Your task to perform on an android device: Go to accessibility settings Image 0: 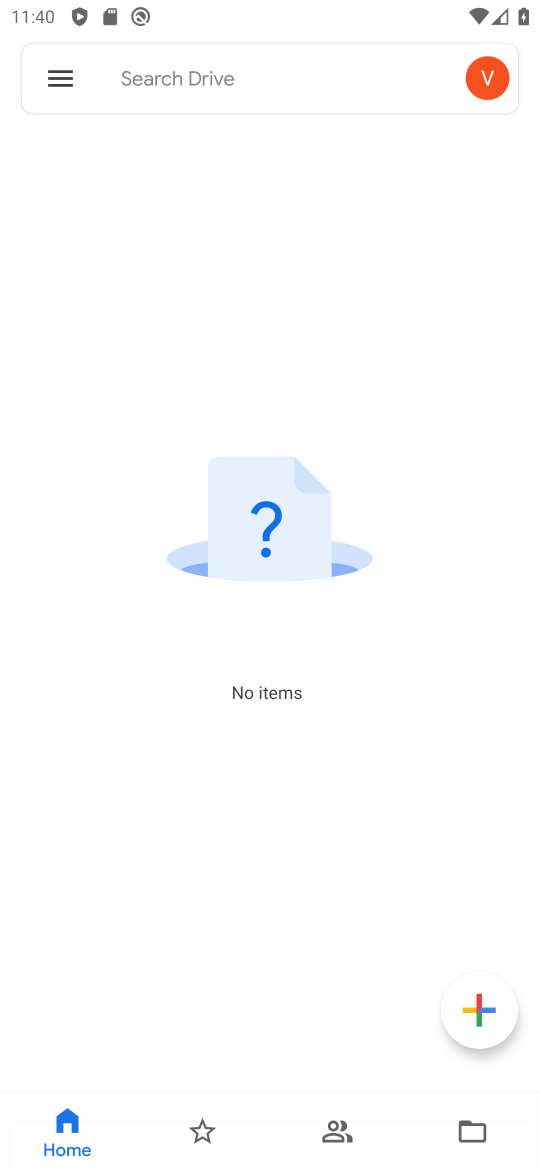
Step 0: press back button
Your task to perform on an android device: Go to accessibility settings Image 1: 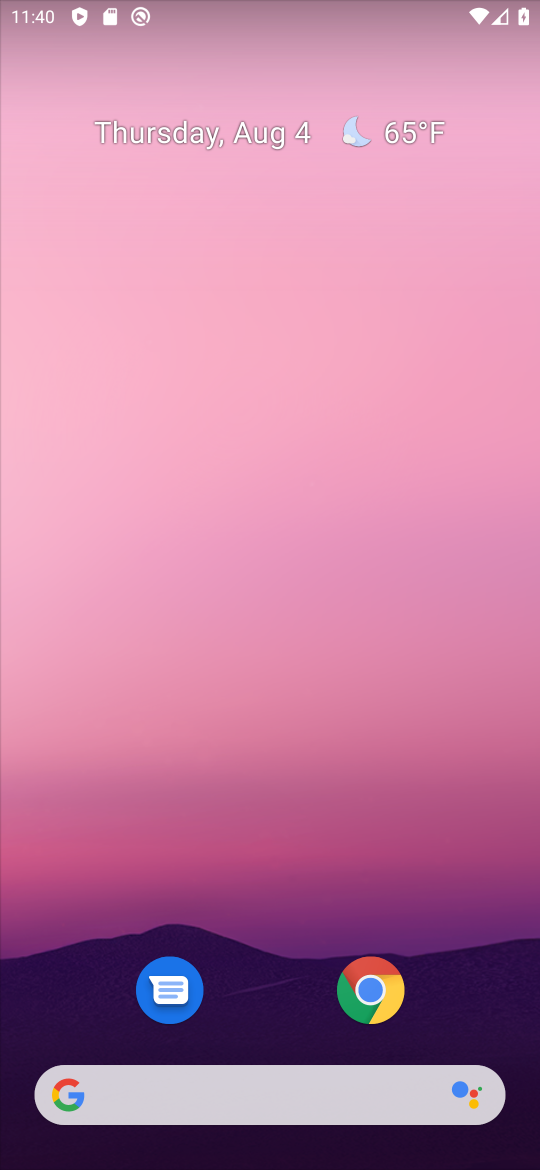
Step 1: drag from (490, 984) to (324, 164)
Your task to perform on an android device: Go to accessibility settings Image 2: 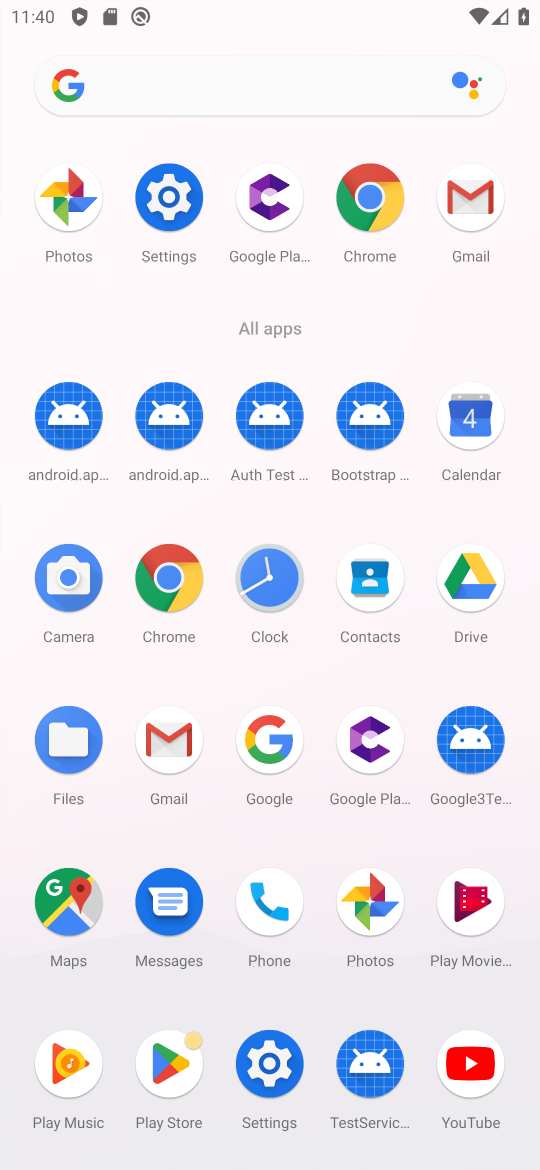
Step 2: click (146, 205)
Your task to perform on an android device: Go to accessibility settings Image 3: 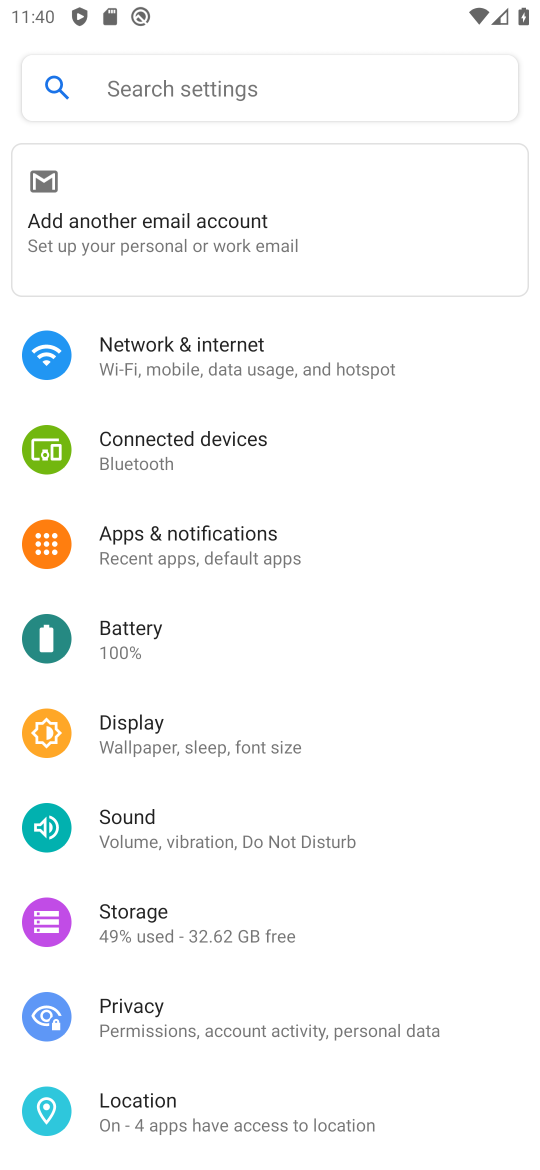
Step 3: drag from (251, 501) to (249, 364)
Your task to perform on an android device: Go to accessibility settings Image 4: 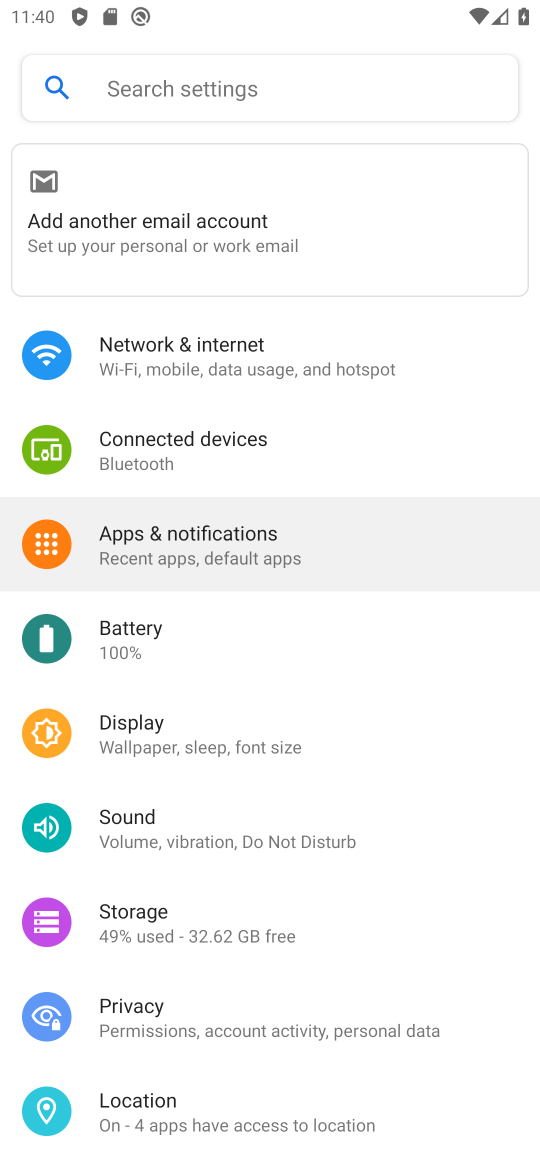
Step 4: drag from (408, 765) to (251, 96)
Your task to perform on an android device: Go to accessibility settings Image 5: 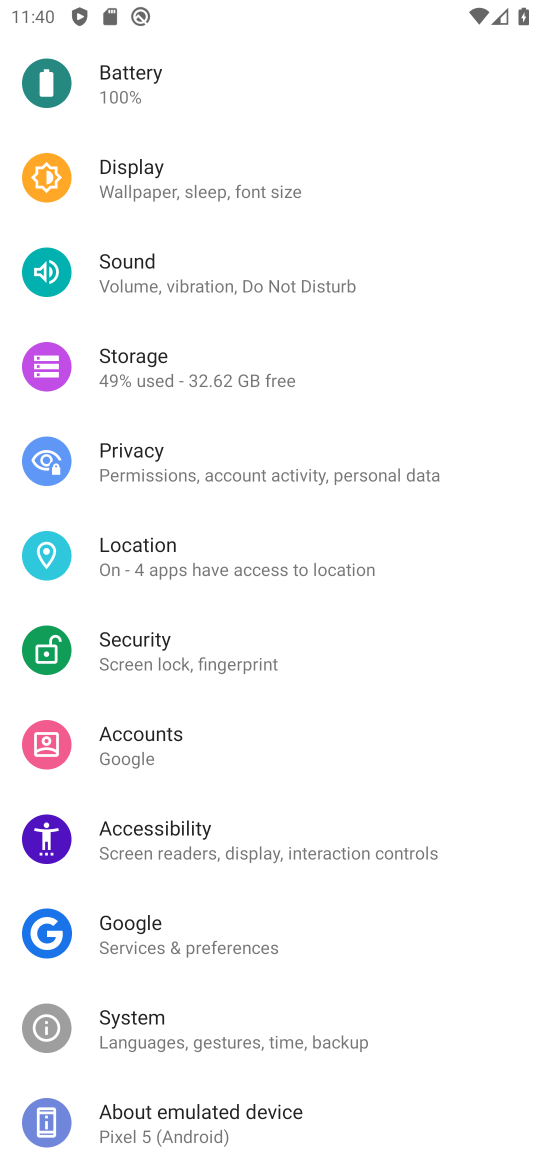
Step 5: click (283, 836)
Your task to perform on an android device: Go to accessibility settings Image 6: 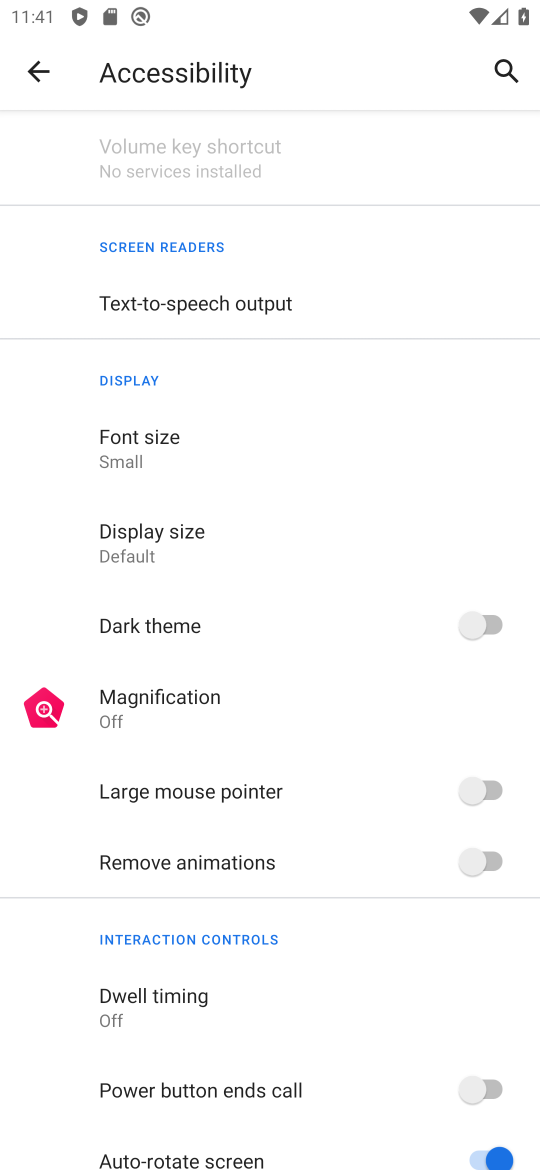
Step 6: task complete